Your task to perform on an android device: When is my next meeting? Image 0: 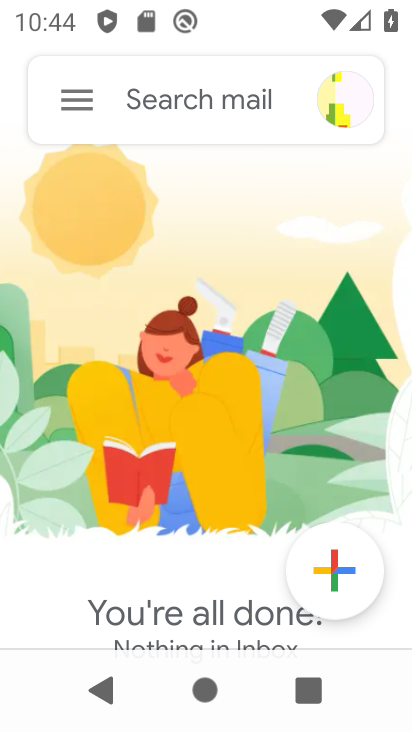
Step 0: press home button
Your task to perform on an android device: When is my next meeting? Image 1: 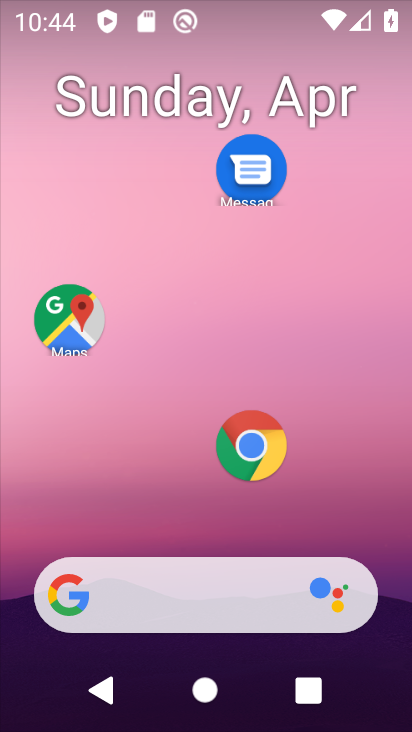
Step 1: drag from (150, 585) to (304, 92)
Your task to perform on an android device: When is my next meeting? Image 2: 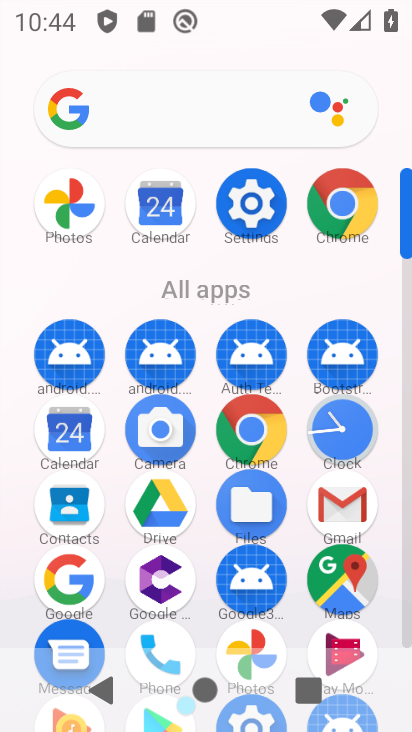
Step 2: click (64, 437)
Your task to perform on an android device: When is my next meeting? Image 3: 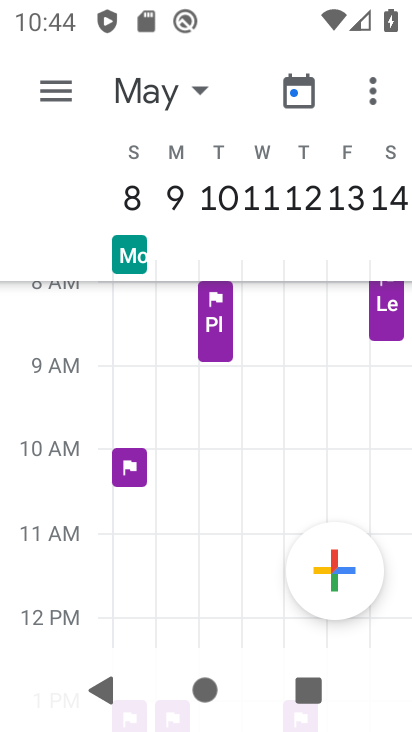
Step 3: click (133, 92)
Your task to perform on an android device: When is my next meeting? Image 4: 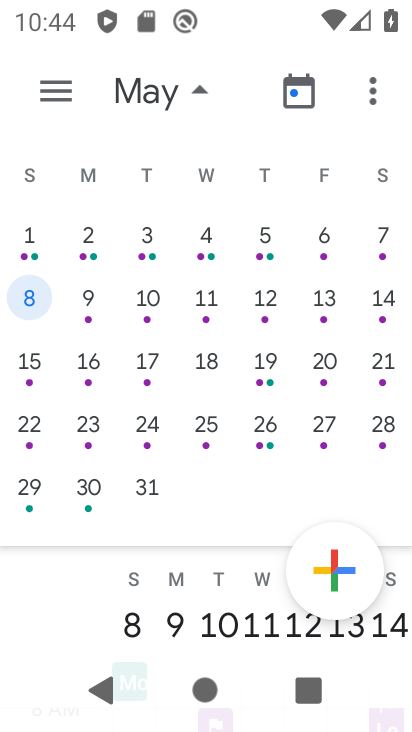
Step 4: click (154, 88)
Your task to perform on an android device: When is my next meeting? Image 5: 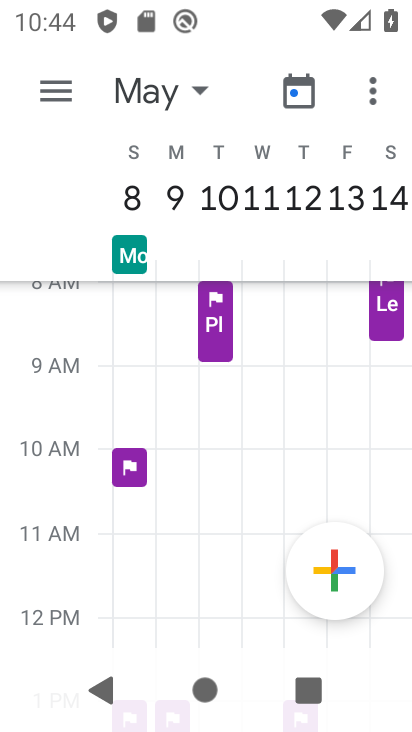
Step 5: click (387, 423)
Your task to perform on an android device: When is my next meeting? Image 6: 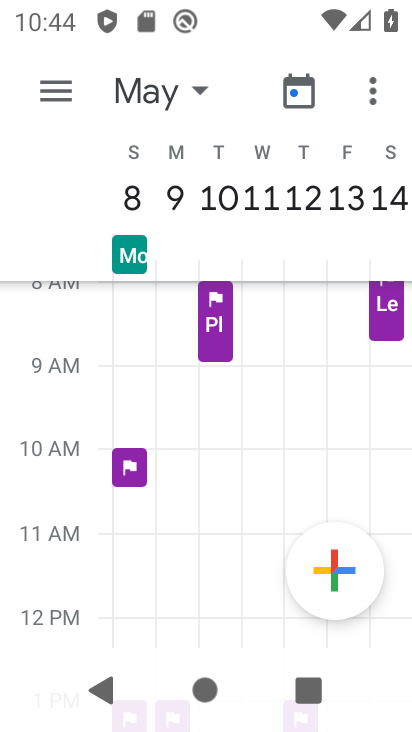
Step 6: drag from (71, 191) to (407, 218)
Your task to perform on an android device: When is my next meeting? Image 7: 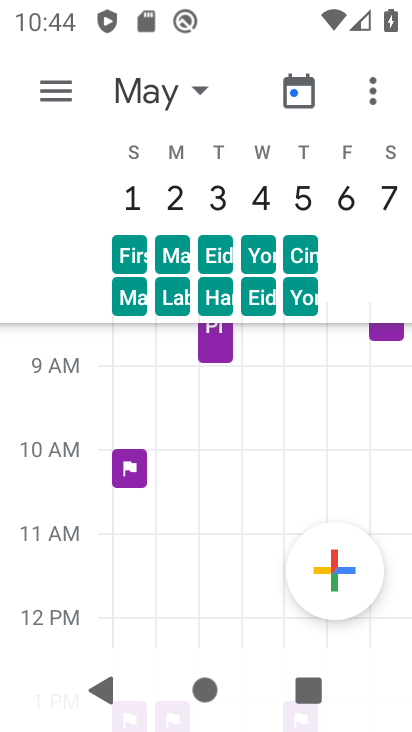
Step 7: click (144, 98)
Your task to perform on an android device: When is my next meeting? Image 8: 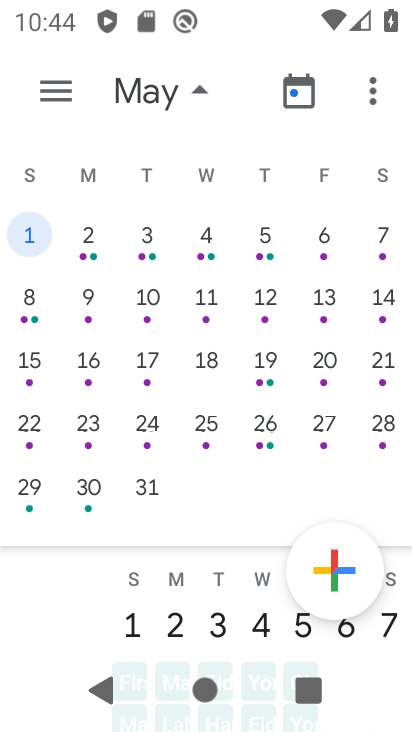
Step 8: drag from (25, 358) to (400, 408)
Your task to perform on an android device: When is my next meeting? Image 9: 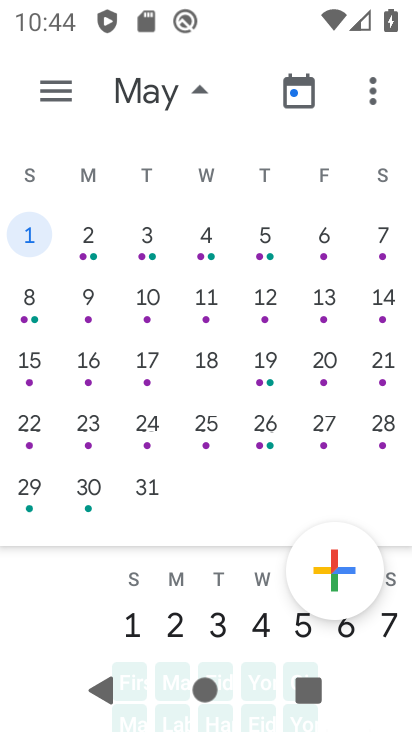
Step 9: drag from (229, 369) to (399, 397)
Your task to perform on an android device: When is my next meeting? Image 10: 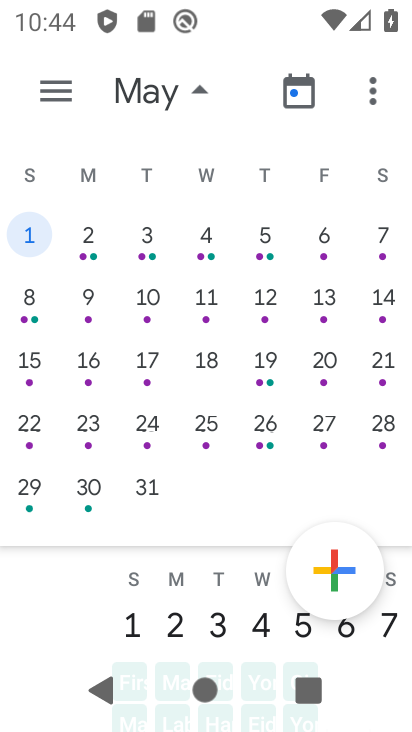
Step 10: drag from (87, 270) to (374, 277)
Your task to perform on an android device: When is my next meeting? Image 11: 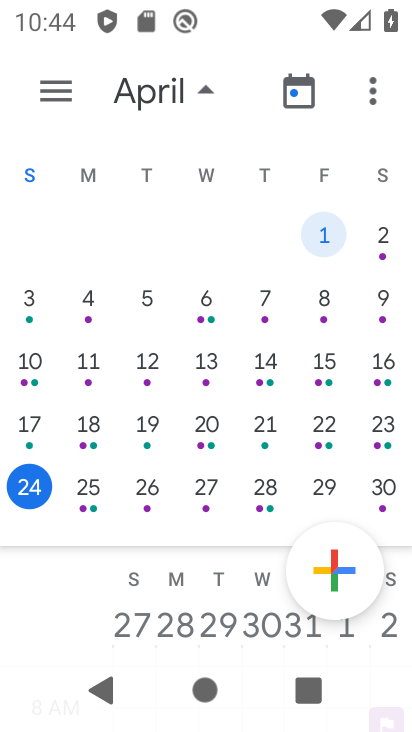
Step 11: click (45, 97)
Your task to perform on an android device: When is my next meeting? Image 12: 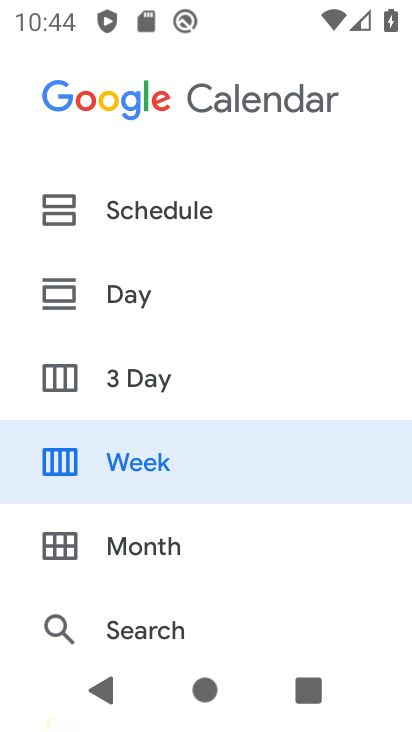
Step 12: click (143, 212)
Your task to perform on an android device: When is my next meeting? Image 13: 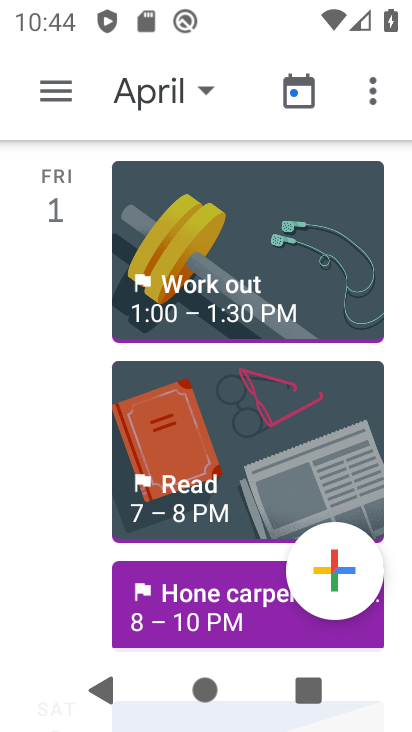
Step 13: click (154, 100)
Your task to perform on an android device: When is my next meeting? Image 14: 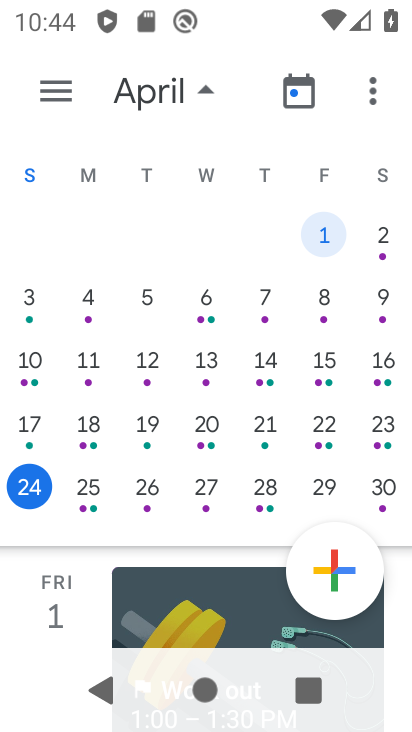
Step 14: click (40, 491)
Your task to perform on an android device: When is my next meeting? Image 15: 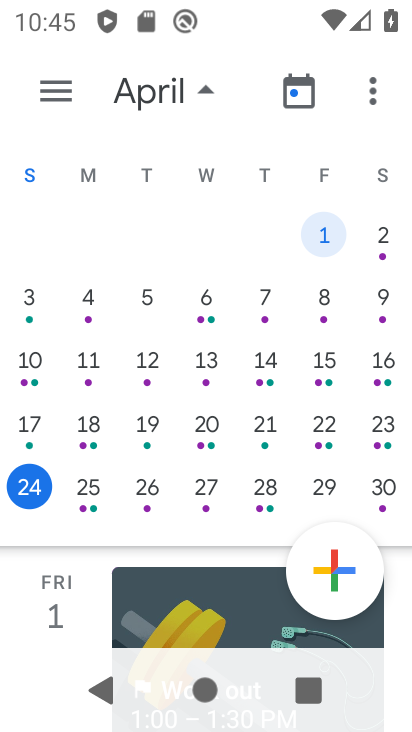
Step 15: click (36, 492)
Your task to perform on an android device: When is my next meeting? Image 16: 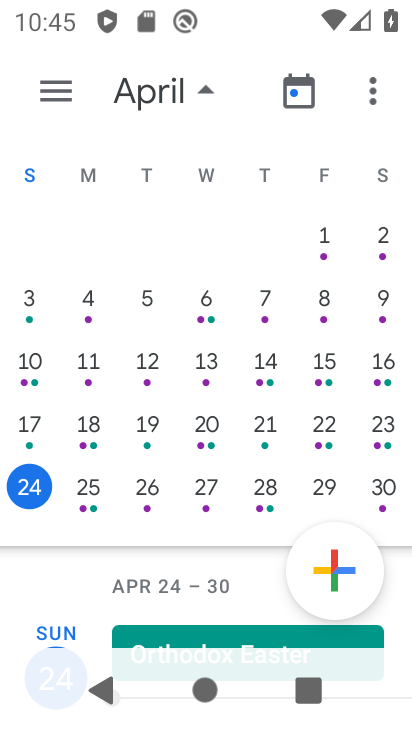
Step 16: click (62, 90)
Your task to perform on an android device: When is my next meeting? Image 17: 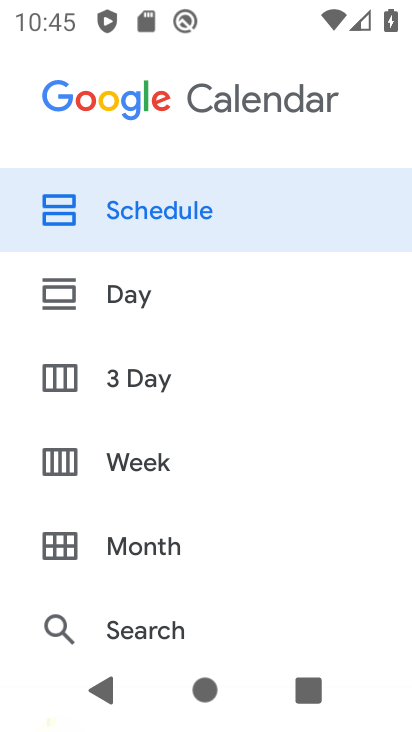
Step 17: click (139, 212)
Your task to perform on an android device: When is my next meeting? Image 18: 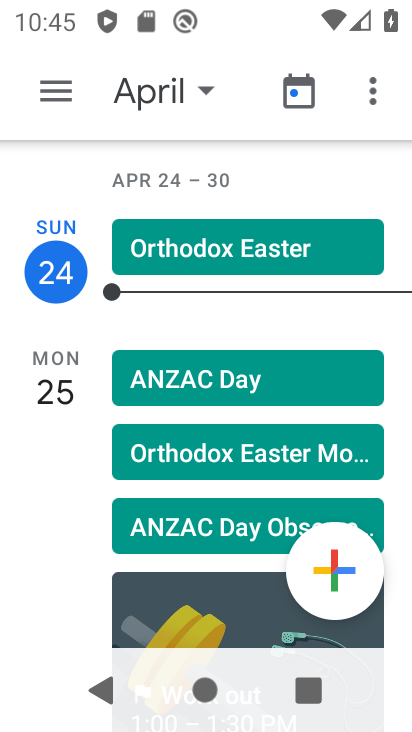
Step 18: drag from (192, 552) to (409, 174)
Your task to perform on an android device: When is my next meeting? Image 19: 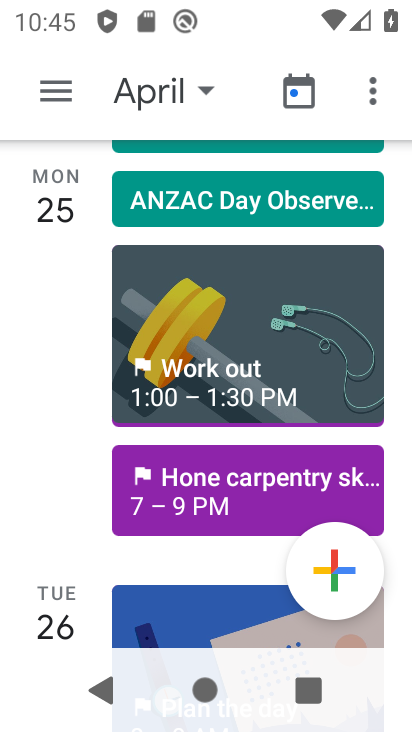
Step 19: click (234, 503)
Your task to perform on an android device: When is my next meeting? Image 20: 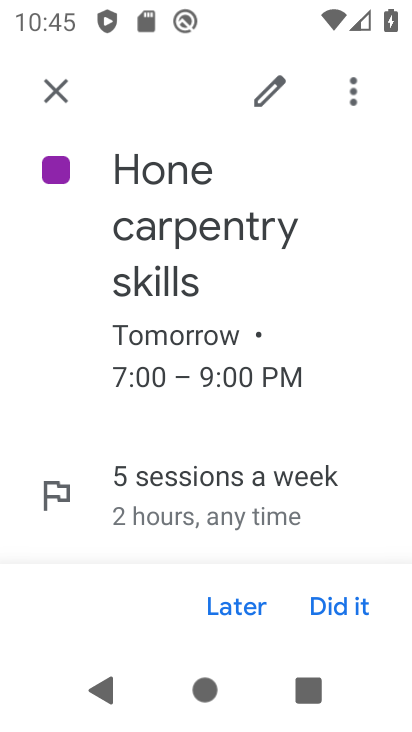
Step 20: task complete